Your task to perform on an android device: snooze an email in the gmail app Image 0: 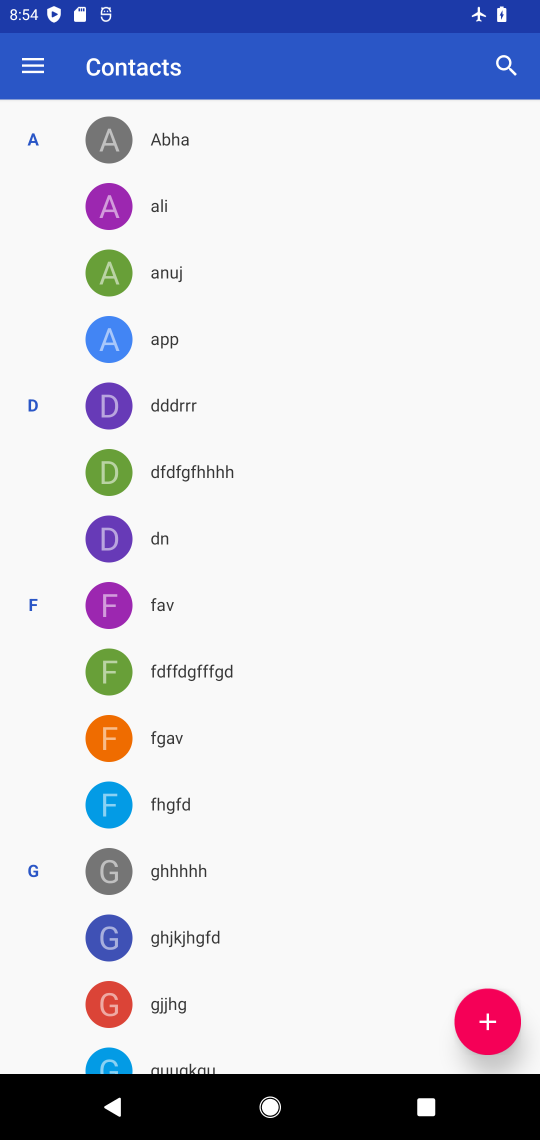
Step 0: press home button
Your task to perform on an android device: snooze an email in the gmail app Image 1: 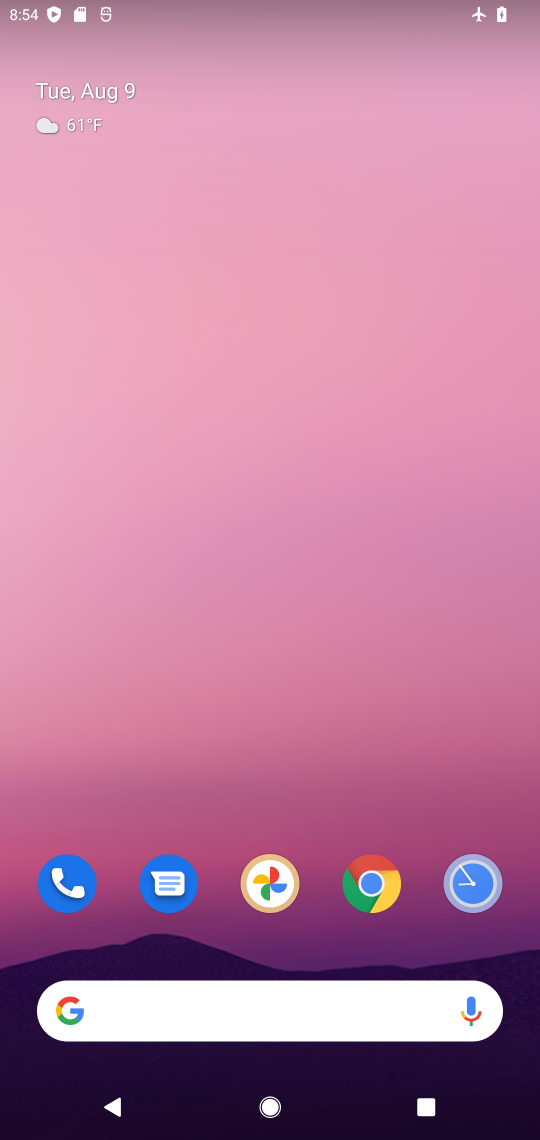
Step 1: drag from (298, 801) to (332, 122)
Your task to perform on an android device: snooze an email in the gmail app Image 2: 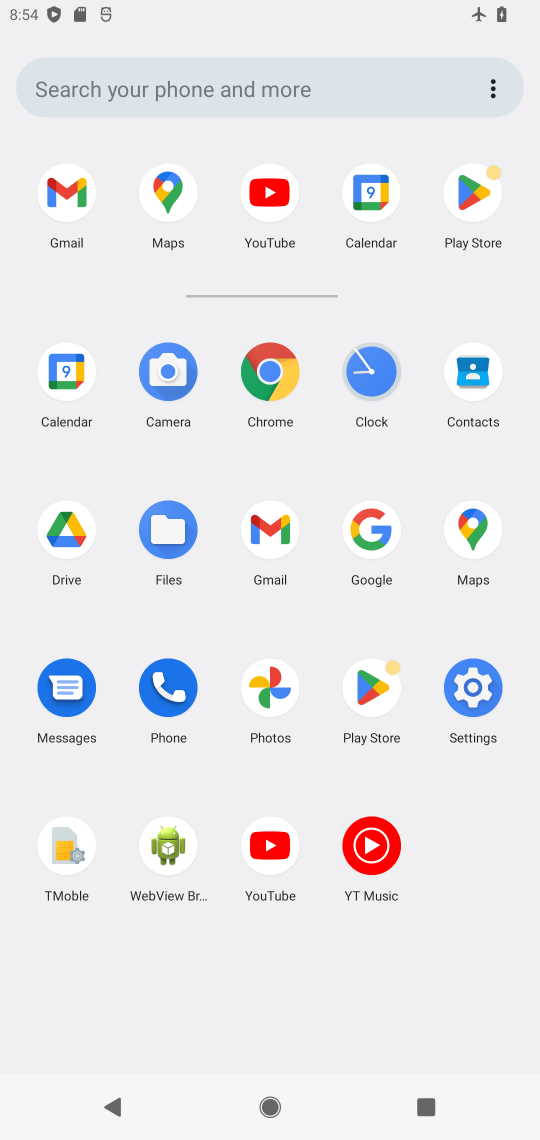
Step 2: click (283, 518)
Your task to perform on an android device: snooze an email in the gmail app Image 3: 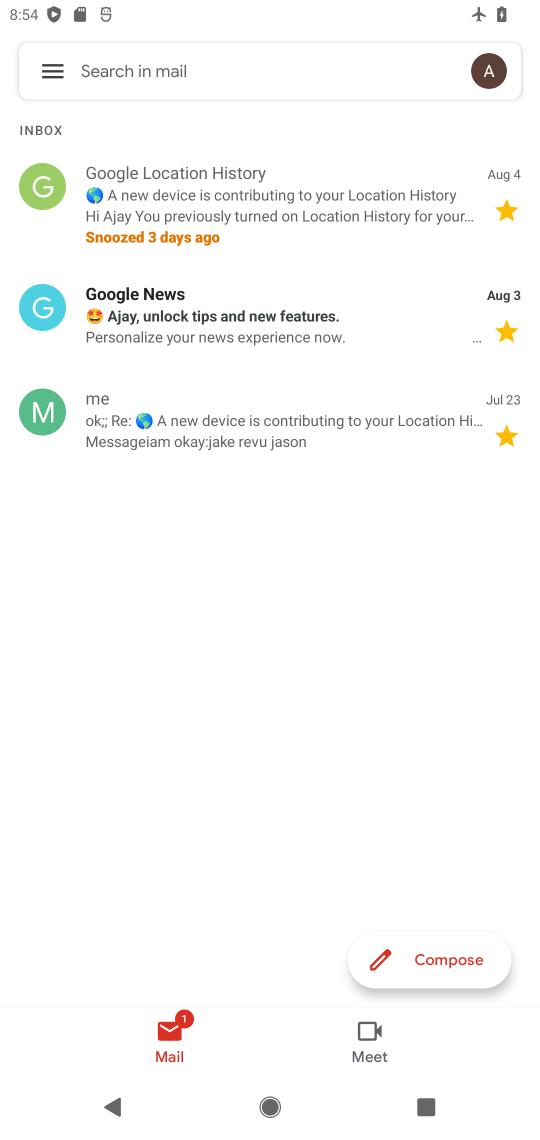
Step 3: click (272, 180)
Your task to perform on an android device: snooze an email in the gmail app Image 4: 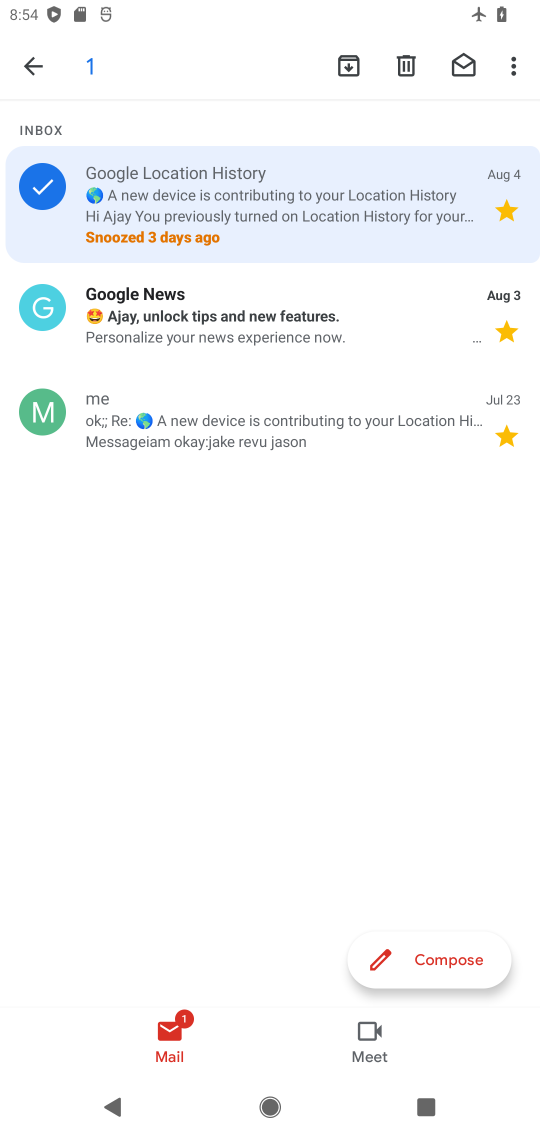
Step 4: click (515, 65)
Your task to perform on an android device: snooze an email in the gmail app Image 5: 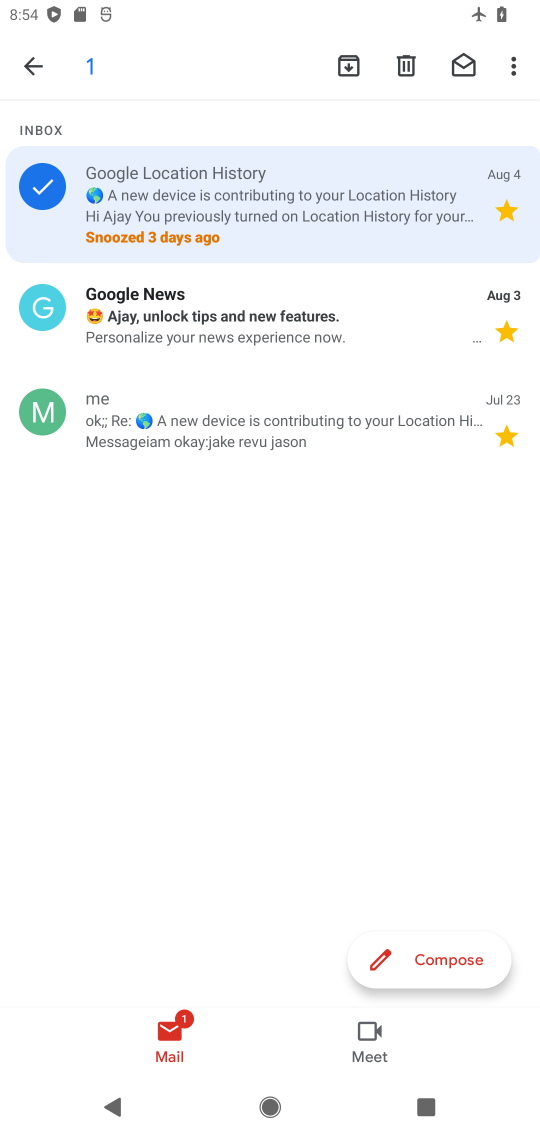
Step 5: click (519, 56)
Your task to perform on an android device: snooze an email in the gmail app Image 6: 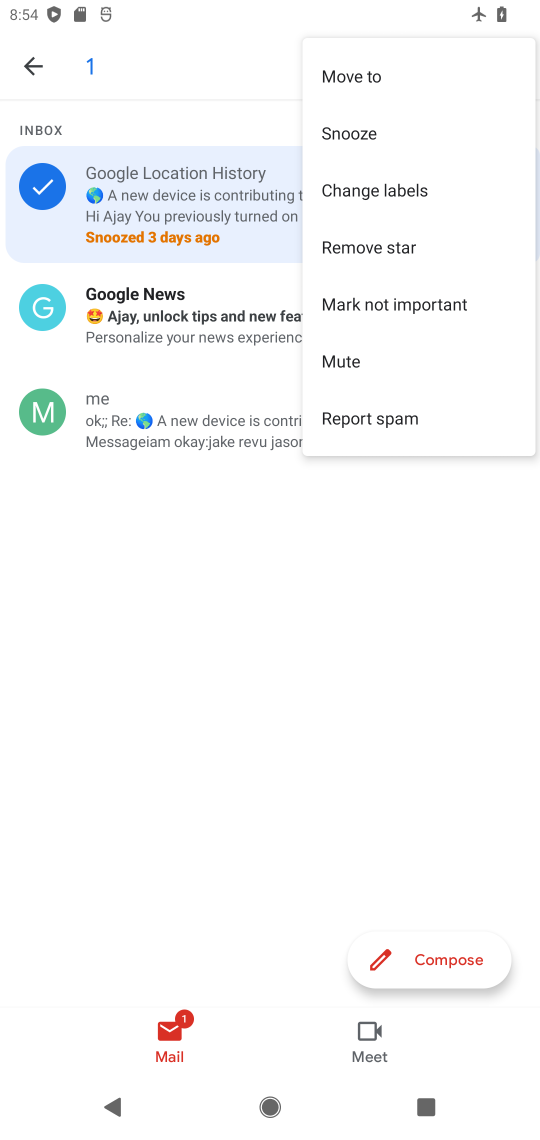
Step 6: click (359, 125)
Your task to perform on an android device: snooze an email in the gmail app Image 7: 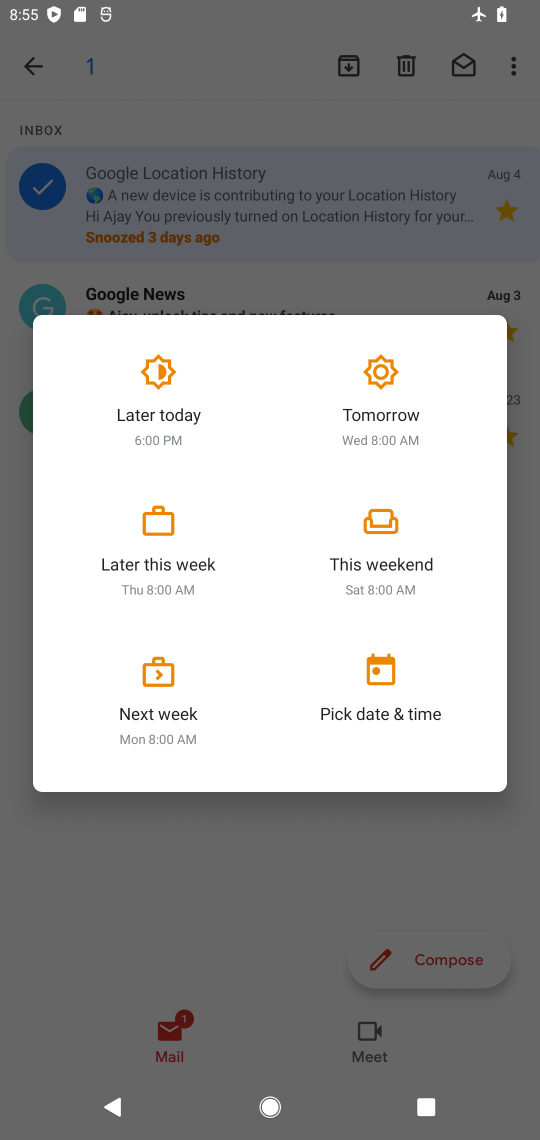
Step 7: click (391, 374)
Your task to perform on an android device: snooze an email in the gmail app Image 8: 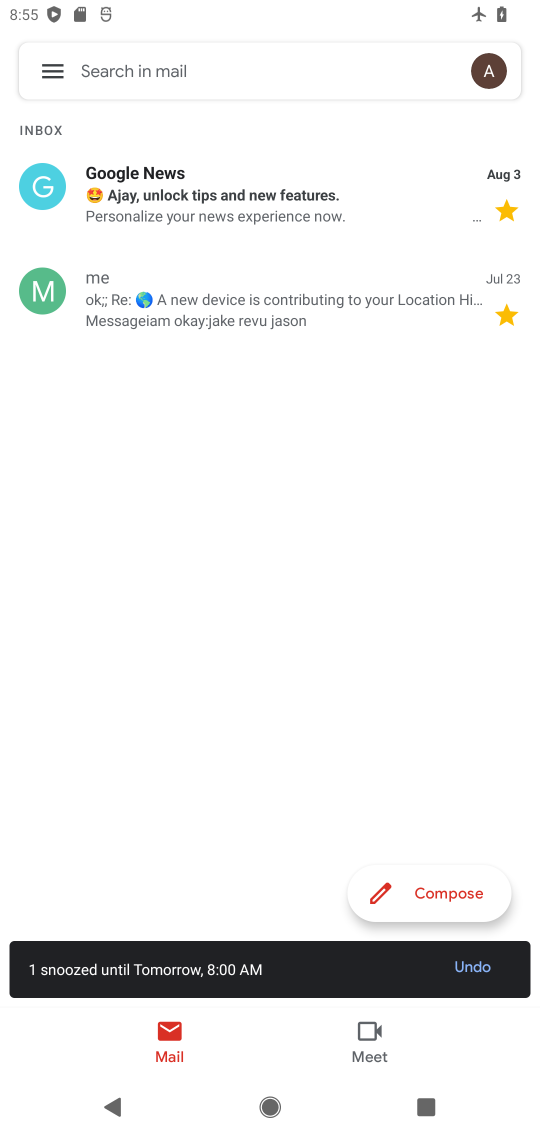
Step 8: task complete